Your task to perform on an android device: Search for vegetarian restaurants on Maps Image 0: 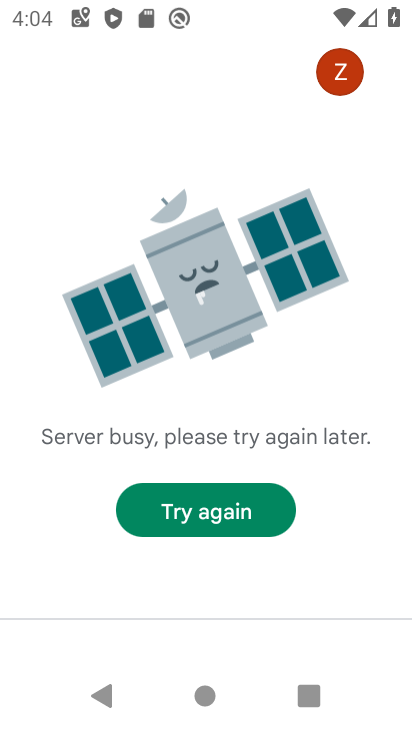
Step 0: press home button
Your task to perform on an android device: Search for vegetarian restaurants on Maps Image 1: 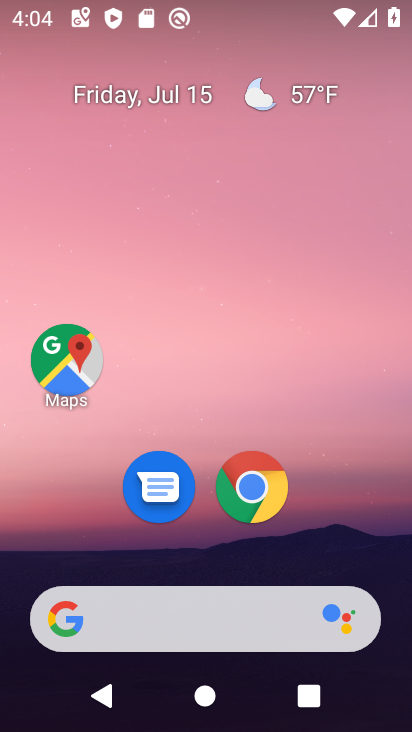
Step 1: click (260, 319)
Your task to perform on an android device: Search for vegetarian restaurants on Maps Image 2: 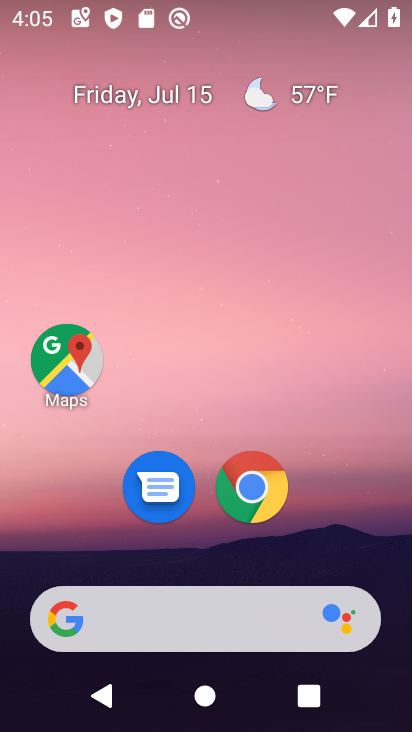
Step 2: drag from (222, 602) to (227, 158)
Your task to perform on an android device: Search for vegetarian restaurants on Maps Image 3: 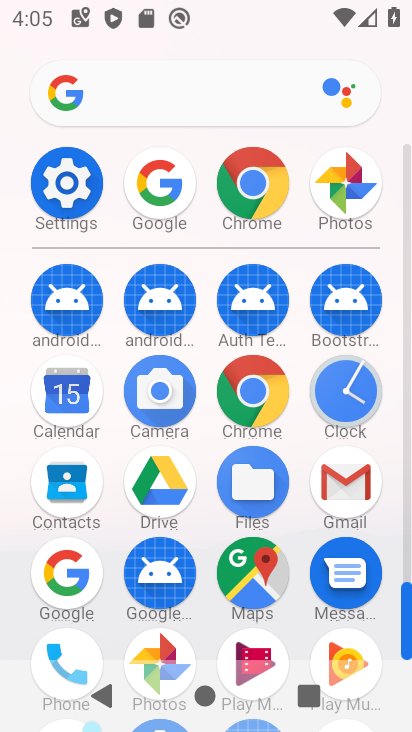
Step 3: drag from (159, 438) to (159, 265)
Your task to perform on an android device: Search for vegetarian restaurants on Maps Image 4: 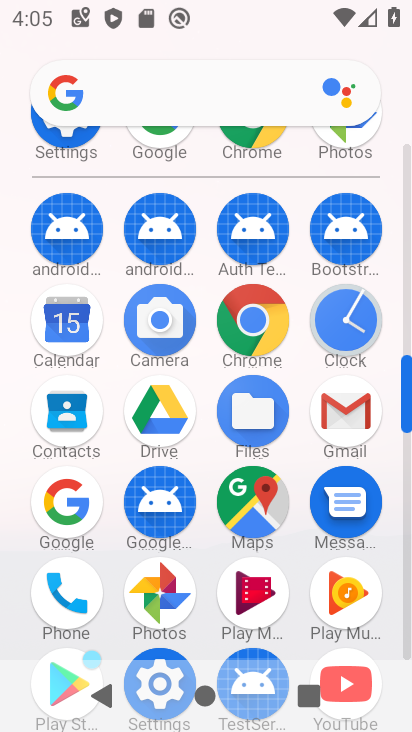
Step 4: click (239, 521)
Your task to perform on an android device: Search for vegetarian restaurants on Maps Image 5: 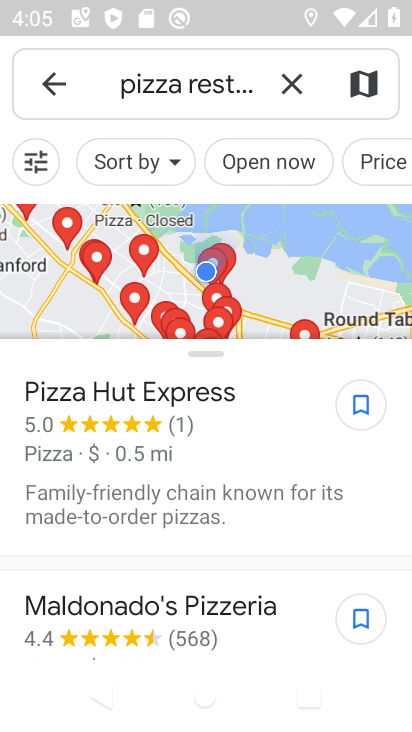
Step 5: click (279, 90)
Your task to perform on an android device: Search for vegetarian restaurants on Maps Image 6: 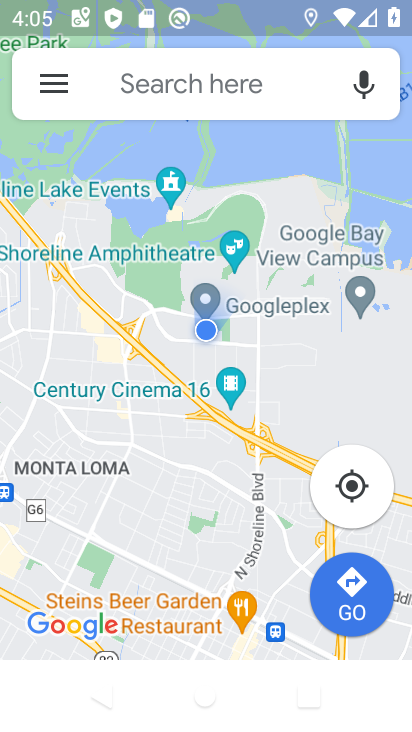
Step 6: click (222, 75)
Your task to perform on an android device: Search for vegetarian restaurants on Maps Image 7: 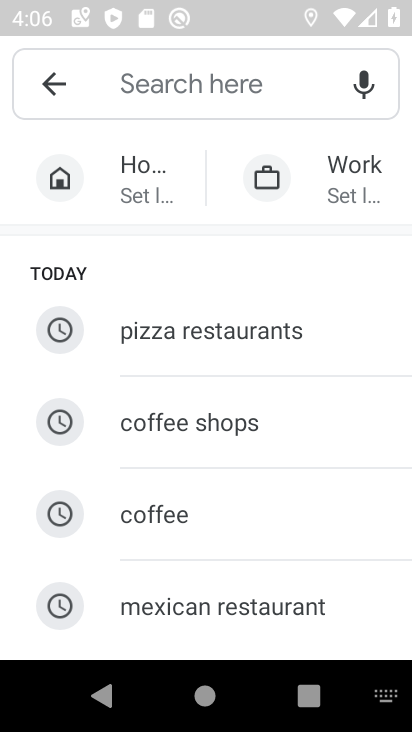
Step 7: type "vagetarian"
Your task to perform on an android device: Search for vegetarian restaurants on Maps Image 8: 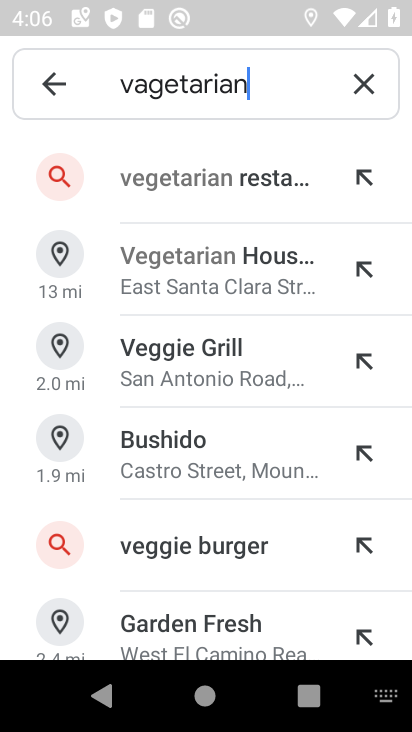
Step 8: click (226, 182)
Your task to perform on an android device: Search for vegetarian restaurants on Maps Image 9: 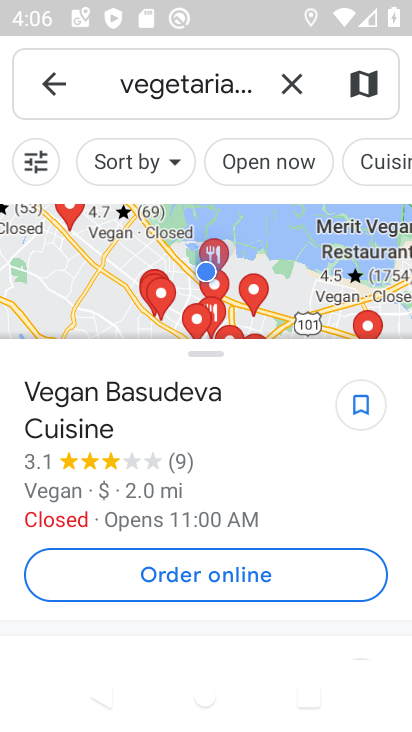
Step 9: task complete